Your task to perform on an android device: open device folders in google photos Image 0: 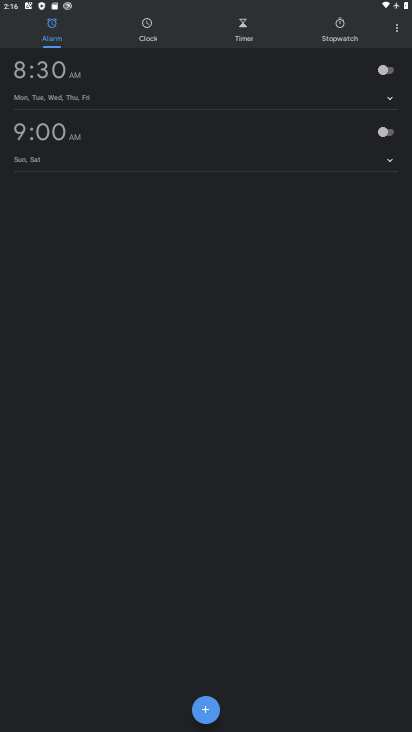
Step 0: press home button
Your task to perform on an android device: open device folders in google photos Image 1: 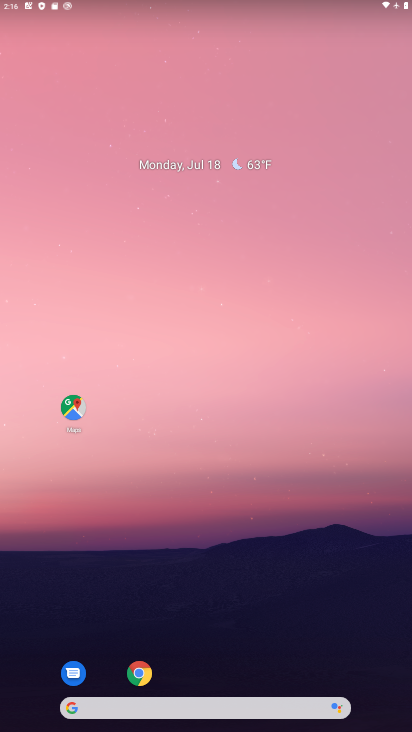
Step 1: drag from (194, 709) to (209, 216)
Your task to perform on an android device: open device folders in google photos Image 2: 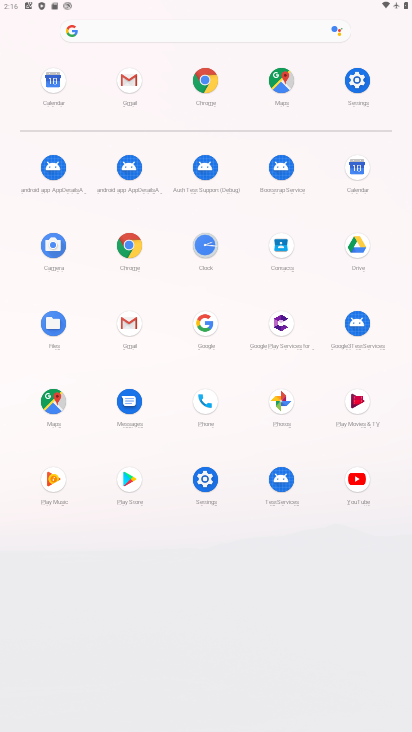
Step 2: click (274, 397)
Your task to perform on an android device: open device folders in google photos Image 3: 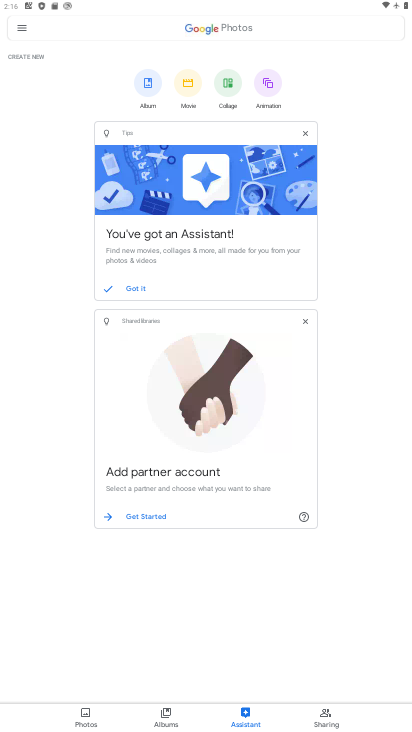
Step 3: click (158, 728)
Your task to perform on an android device: open device folders in google photos Image 4: 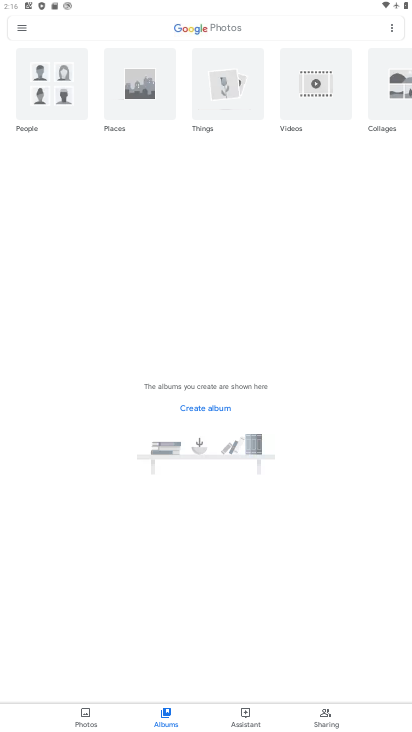
Step 4: task complete